Your task to perform on an android device: Open ESPN.com Image 0: 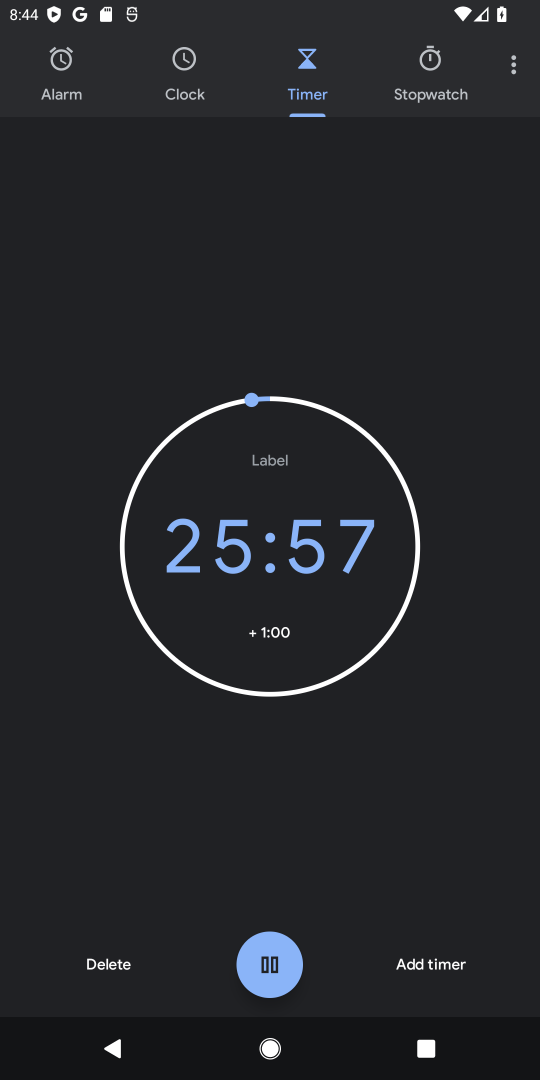
Step 0: press home button
Your task to perform on an android device: Open ESPN.com Image 1: 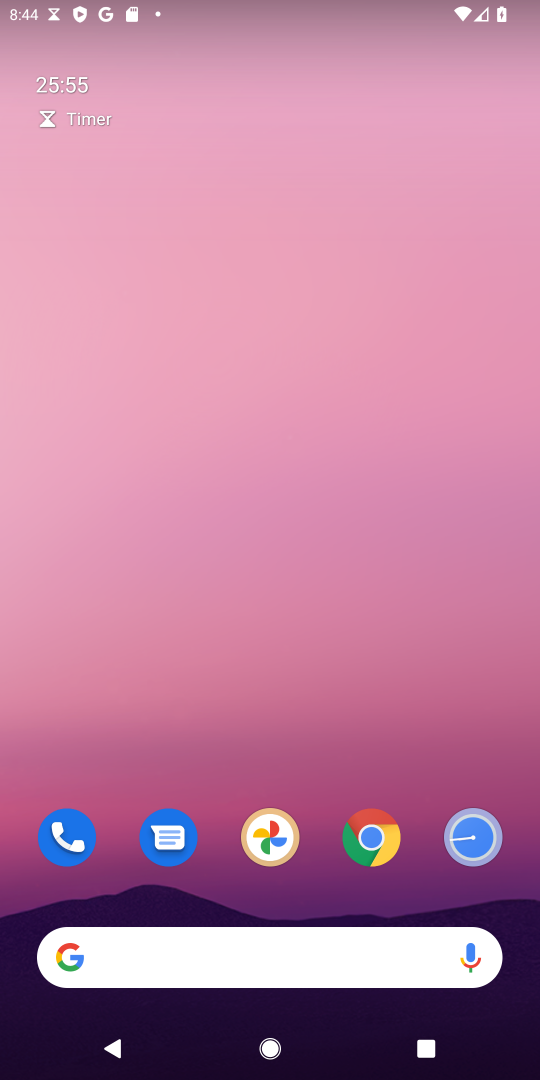
Step 1: click (373, 850)
Your task to perform on an android device: Open ESPN.com Image 2: 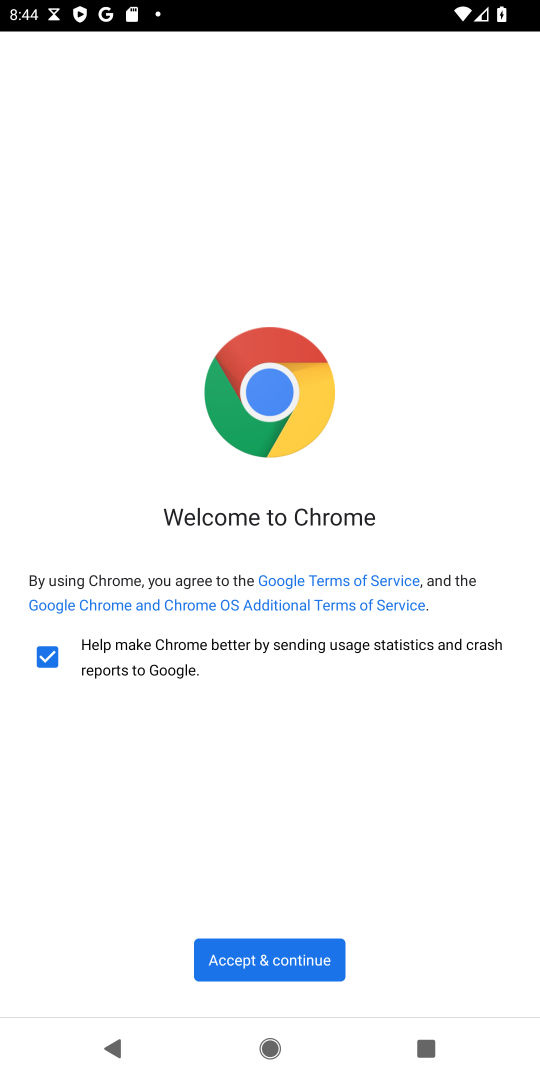
Step 2: click (307, 966)
Your task to perform on an android device: Open ESPN.com Image 3: 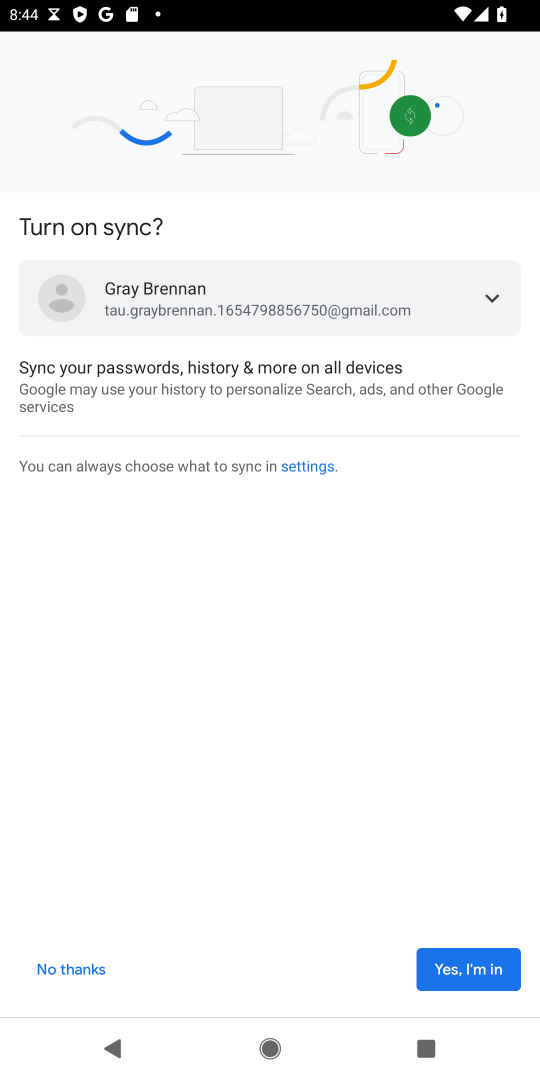
Step 3: click (492, 952)
Your task to perform on an android device: Open ESPN.com Image 4: 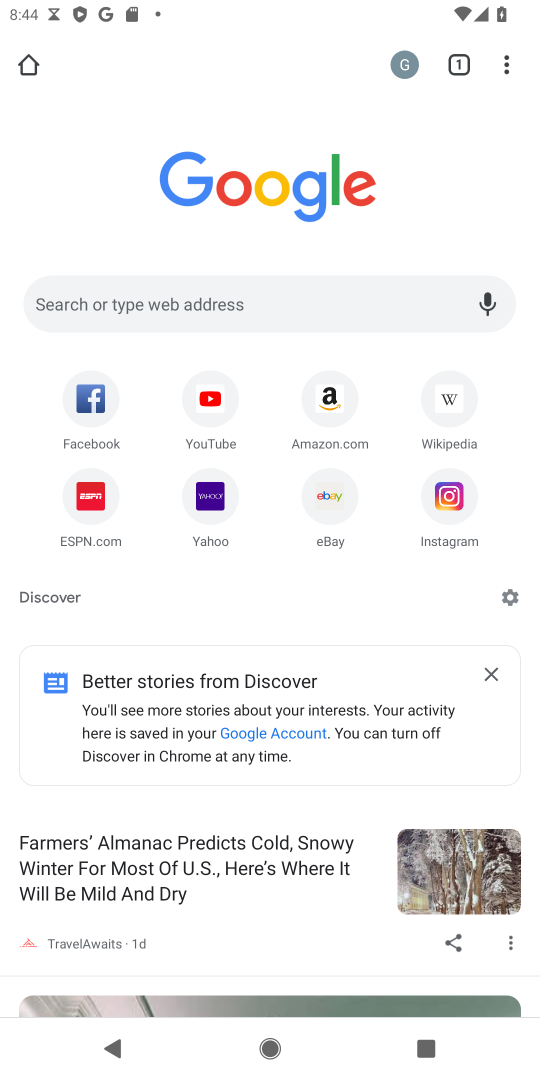
Step 4: click (87, 495)
Your task to perform on an android device: Open ESPN.com Image 5: 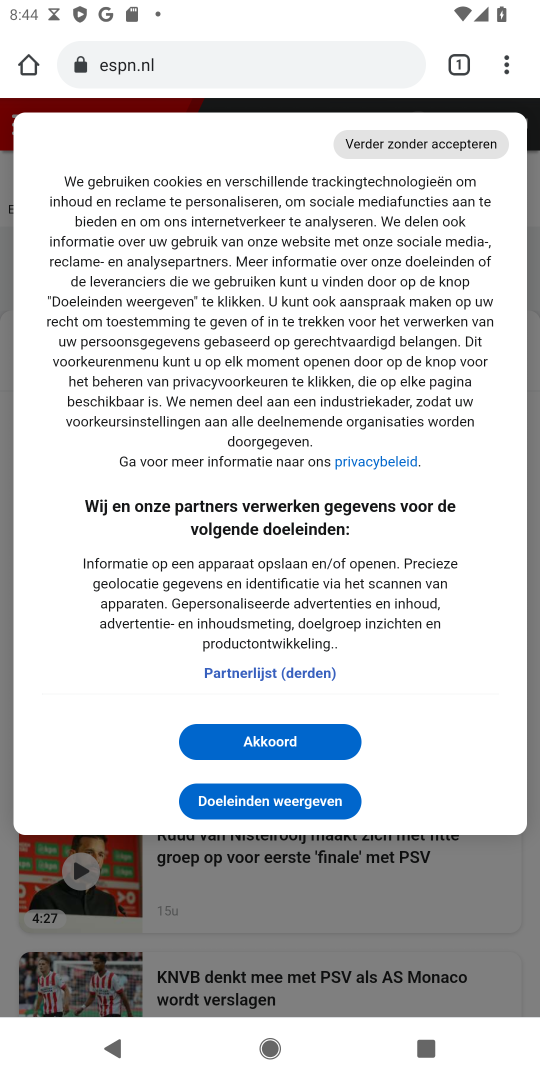
Step 5: click (284, 737)
Your task to perform on an android device: Open ESPN.com Image 6: 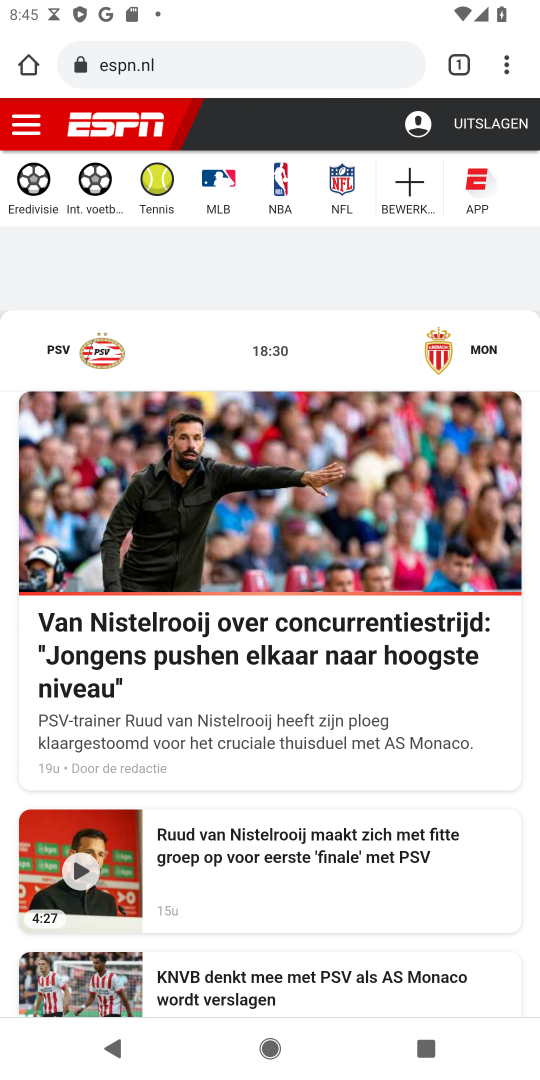
Step 6: task complete